Your task to perform on an android device: move an email to a new category in the gmail app Image 0: 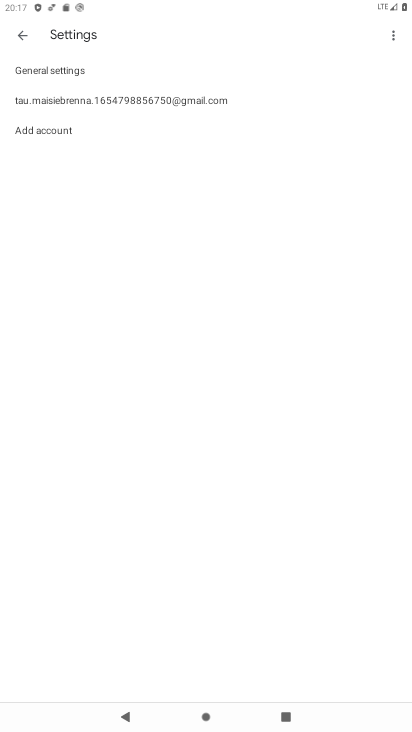
Step 0: press home button
Your task to perform on an android device: move an email to a new category in the gmail app Image 1: 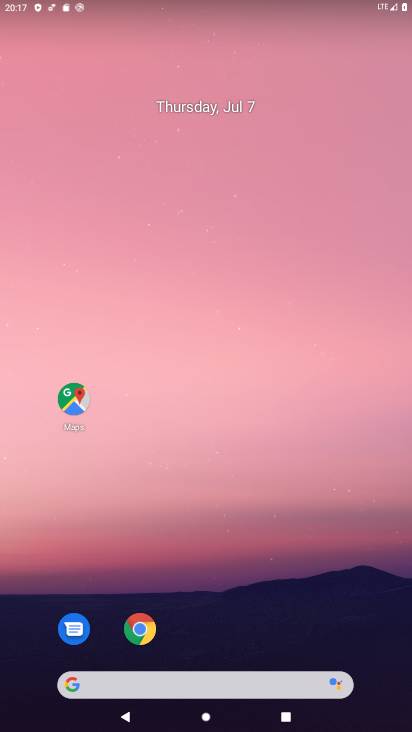
Step 1: drag from (370, 646) to (256, 314)
Your task to perform on an android device: move an email to a new category in the gmail app Image 2: 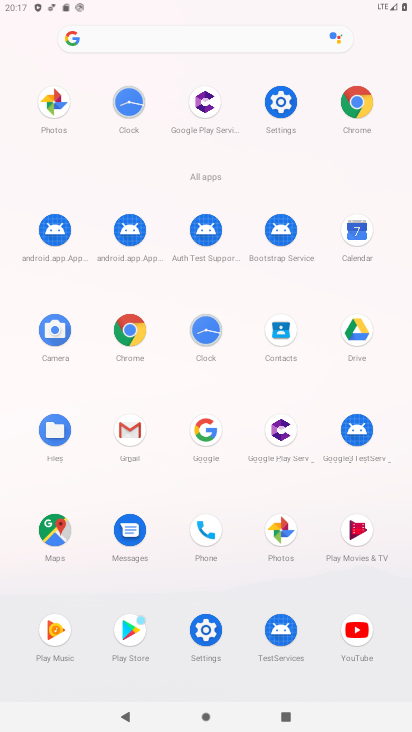
Step 2: drag from (239, 694) to (257, 630)
Your task to perform on an android device: move an email to a new category in the gmail app Image 3: 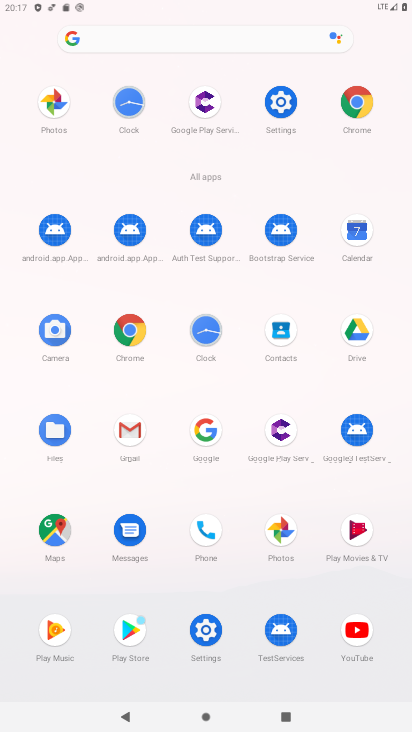
Step 3: click (145, 435)
Your task to perform on an android device: move an email to a new category in the gmail app Image 4: 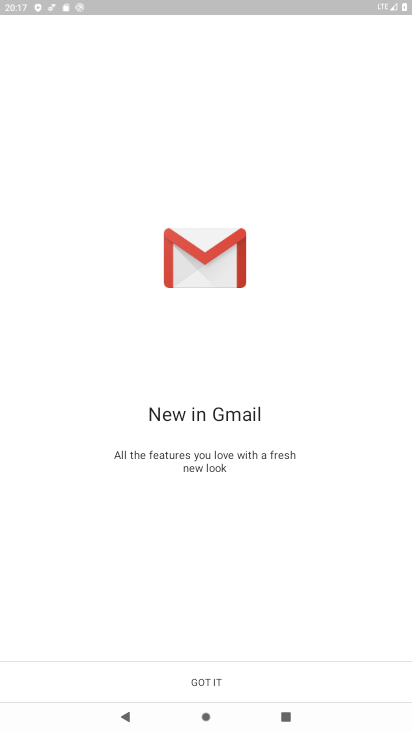
Step 4: click (287, 688)
Your task to perform on an android device: move an email to a new category in the gmail app Image 5: 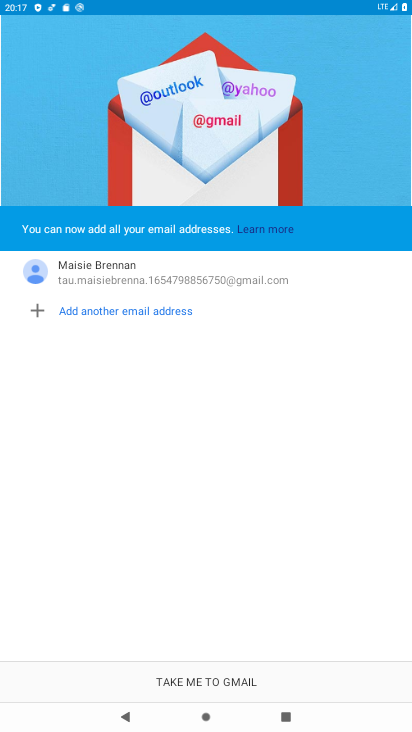
Step 5: click (287, 688)
Your task to perform on an android device: move an email to a new category in the gmail app Image 6: 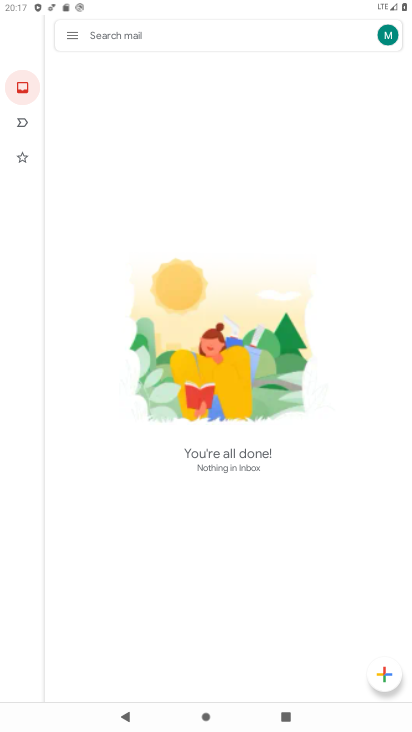
Step 6: task complete